Your task to perform on an android device: Search for pizza restaurants on Maps Image 0: 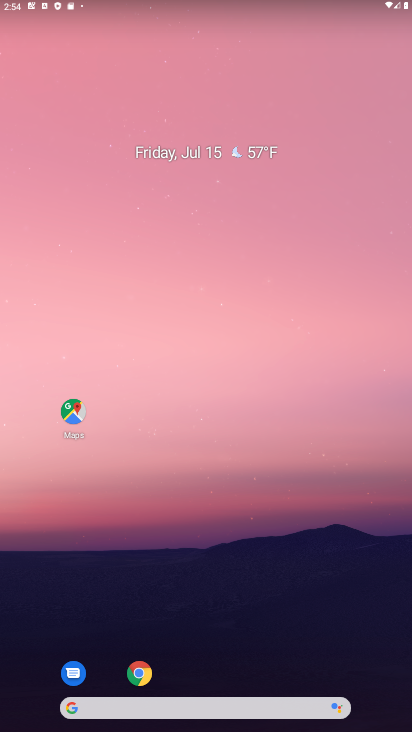
Step 0: click (72, 411)
Your task to perform on an android device: Search for pizza restaurants on Maps Image 1: 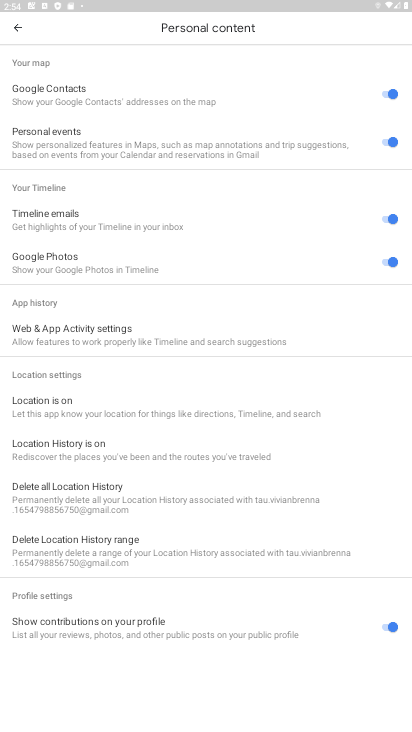
Step 1: press back button
Your task to perform on an android device: Search for pizza restaurants on Maps Image 2: 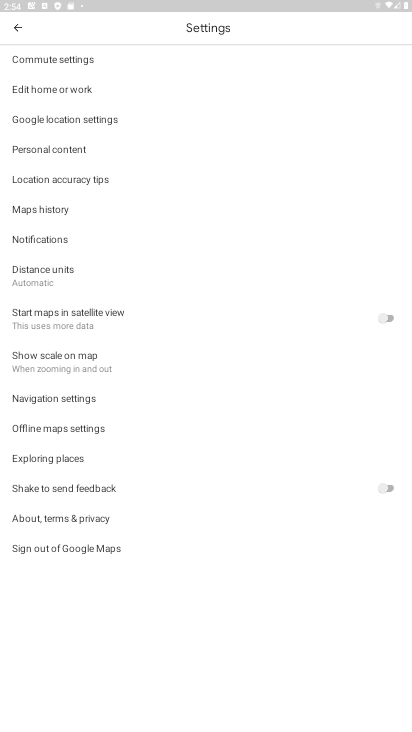
Step 2: press back button
Your task to perform on an android device: Search for pizza restaurants on Maps Image 3: 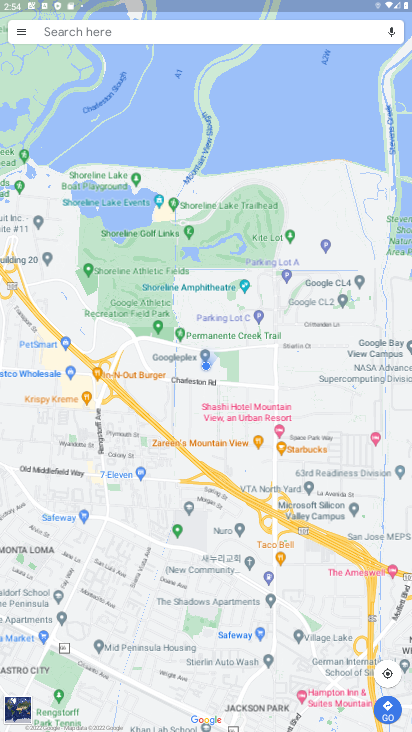
Step 3: click (112, 31)
Your task to perform on an android device: Search for pizza restaurants on Maps Image 4: 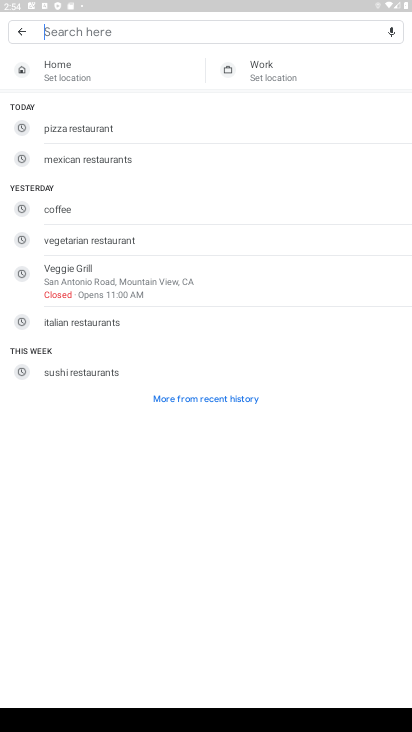
Step 4: type "pizza restaurants"
Your task to perform on an android device: Search for pizza restaurants on Maps Image 5: 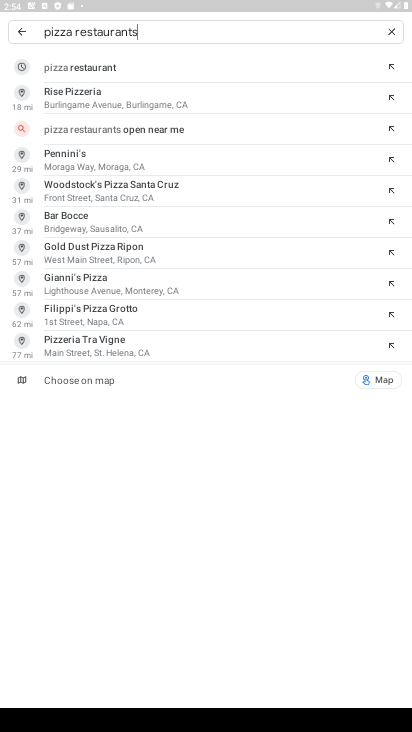
Step 5: click (81, 63)
Your task to perform on an android device: Search for pizza restaurants on Maps Image 6: 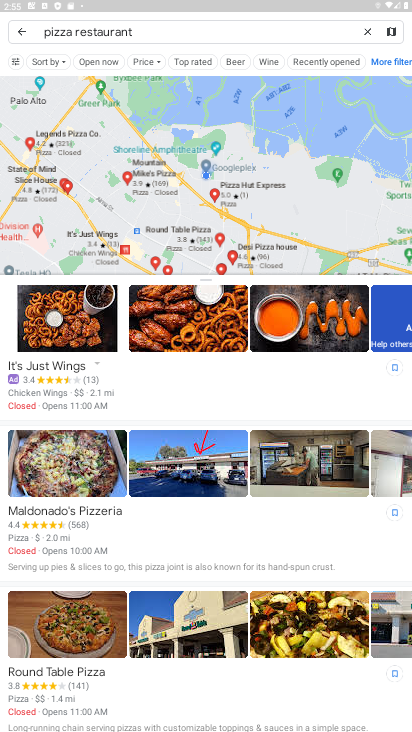
Step 6: task complete